Your task to perform on an android device: Find coffee shops on Maps Image 0: 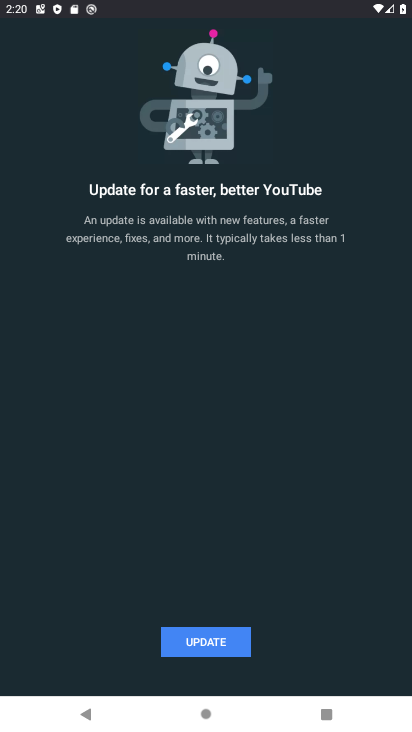
Step 0: press home button
Your task to perform on an android device: Find coffee shops on Maps Image 1: 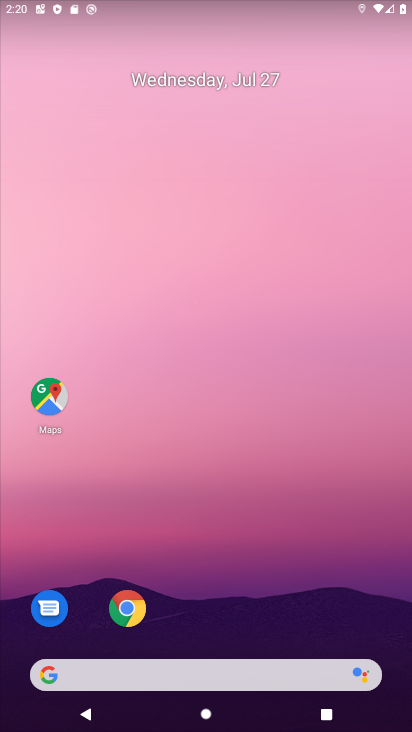
Step 1: click (40, 387)
Your task to perform on an android device: Find coffee shops on Maps Image 2: 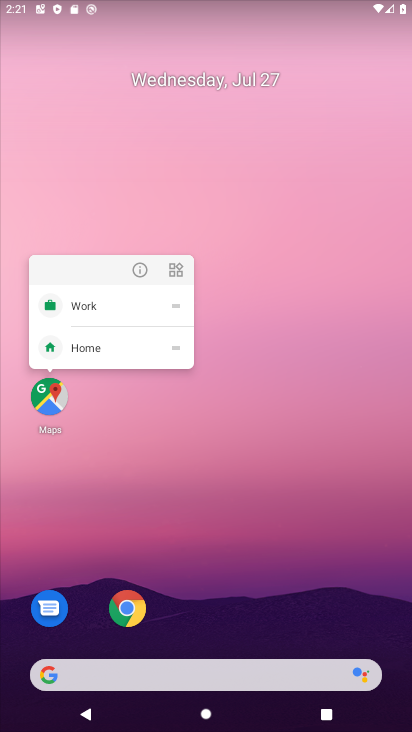
Step 2: click (56, 407)
Your task to perform on an android device: Find coffee shops on Maps Image 3: 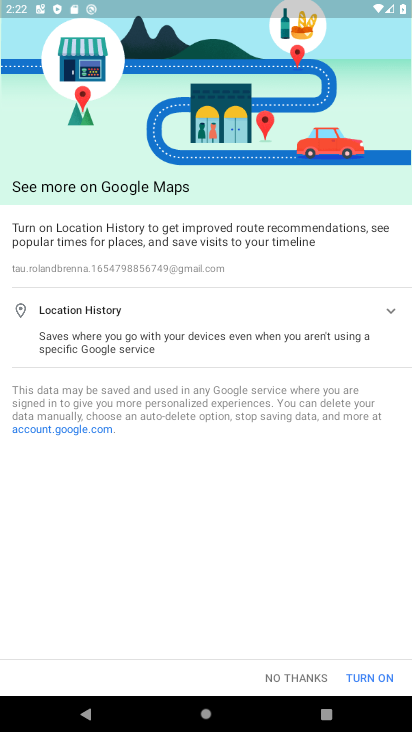
Step 3: click (375, 673)
Your task to perform on an android device: Find coffee shops on Maps Image 4: 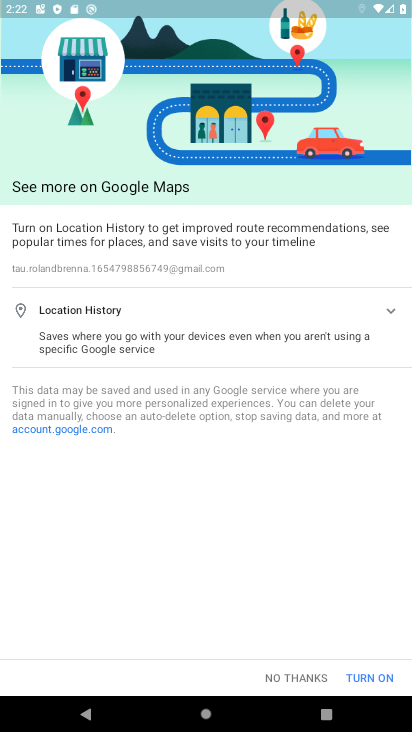
Step 4: click (361, 678)
Your task to perform on an android device: Find coffee shops on Maps Image 5: 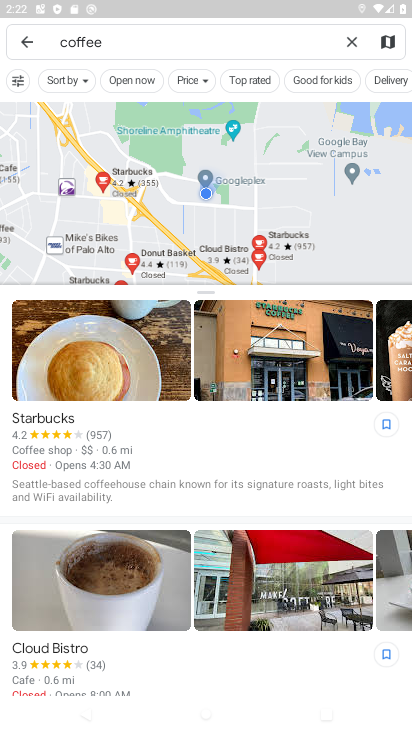
Step 5: click (296, 679)
Your task to perform on an android device: Find coffee shops on Maps Image 6: 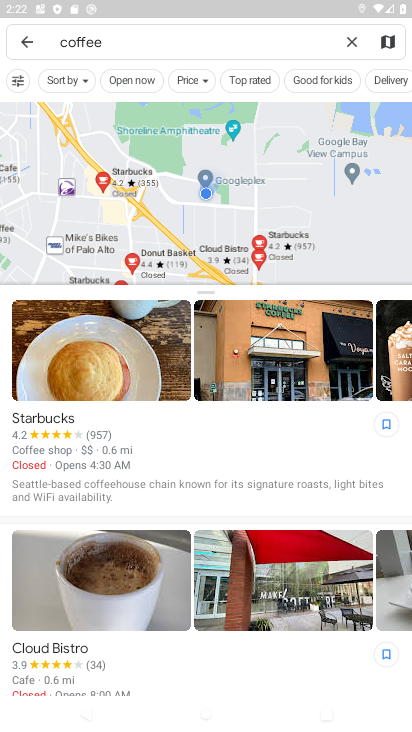
Step 6: click (289, 672)
Your task to perform on an android device: Find coffee shops on Maps Image 7: 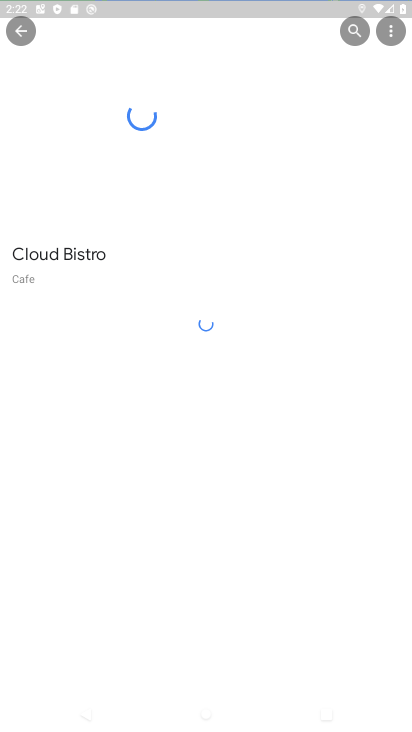
Step 7: task complete